Your task to perform on an android device: open app "Microsoft Outlook" (install if not already installed) Image 0: 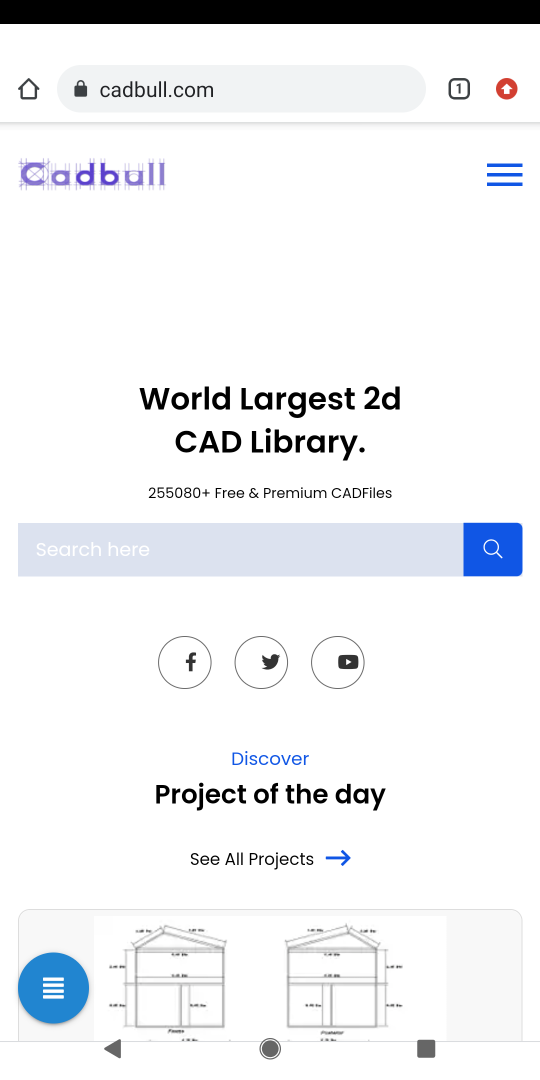
Step 0: press home button
Your task to perform on an android device: open app "Microsoft Outlook" (install if not already installed) Image 1: 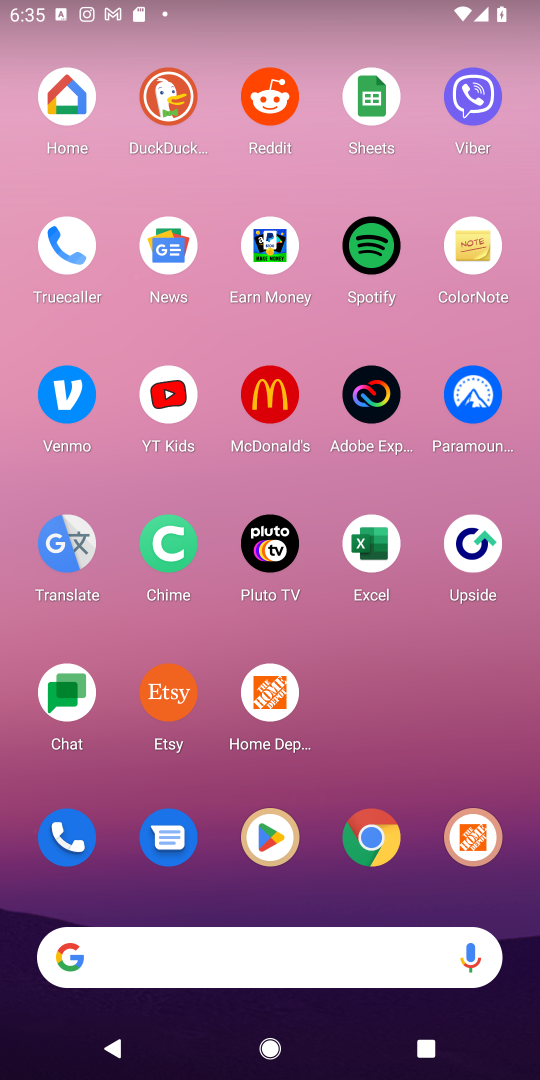
Step 1: press home button
Your task to perform on an android device: open app "Microsoft Outlook" (install if not already installed) Image 2: 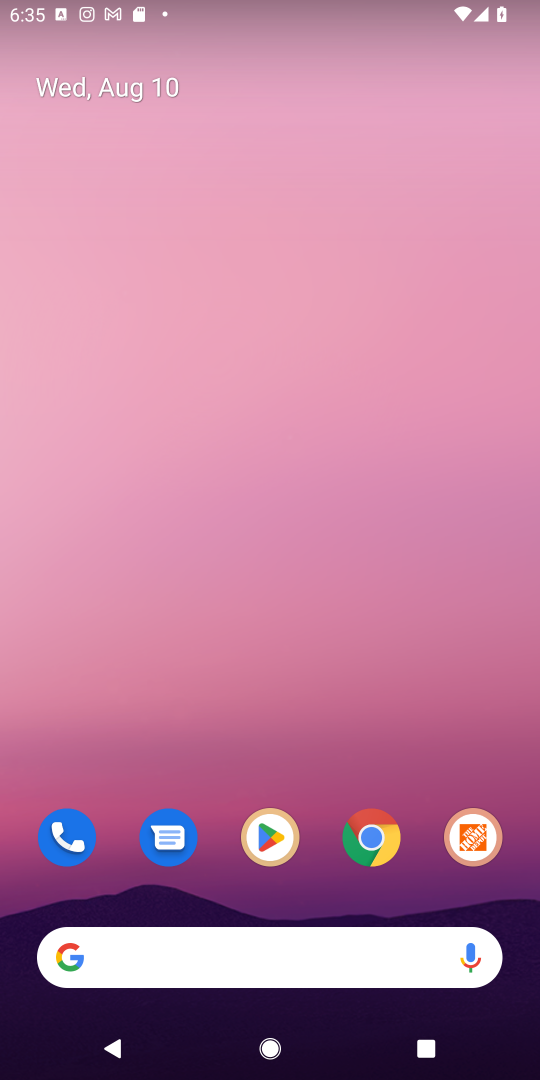
Step 2: click (264, 846)
Your task to perform on an android device: open app "Microsoft Outlook" (install if not already installed) Image 3: 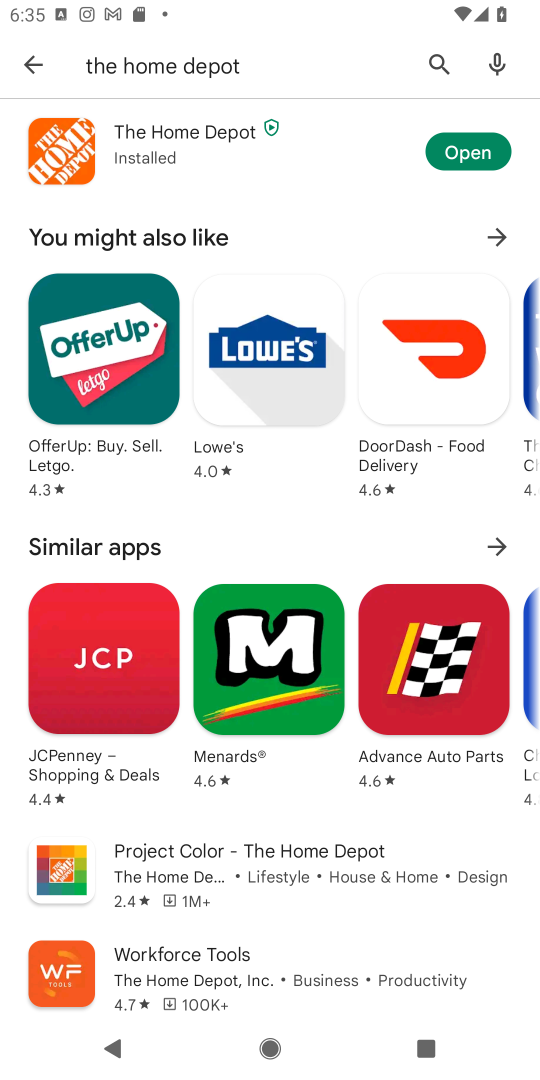
Step 3: click (430, 58)
Your task to perform on an android device: open app "Microsoft Outlook" (install if not already installed) Image 4: 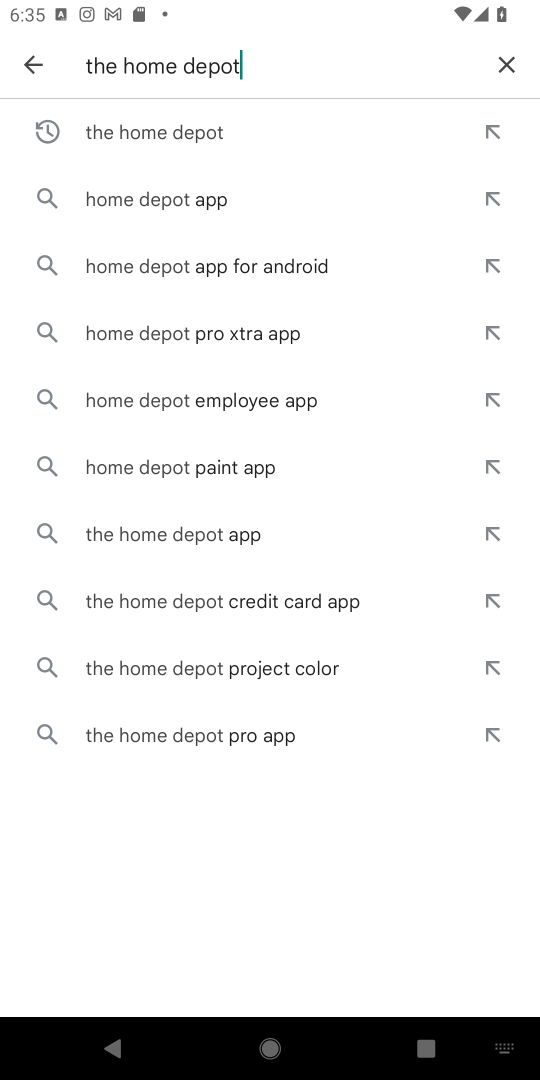
Step 4: click (509, 46)
Your task to perform on an android device: open app "Microsoft Outlook" (install if not already installed) Image 5: 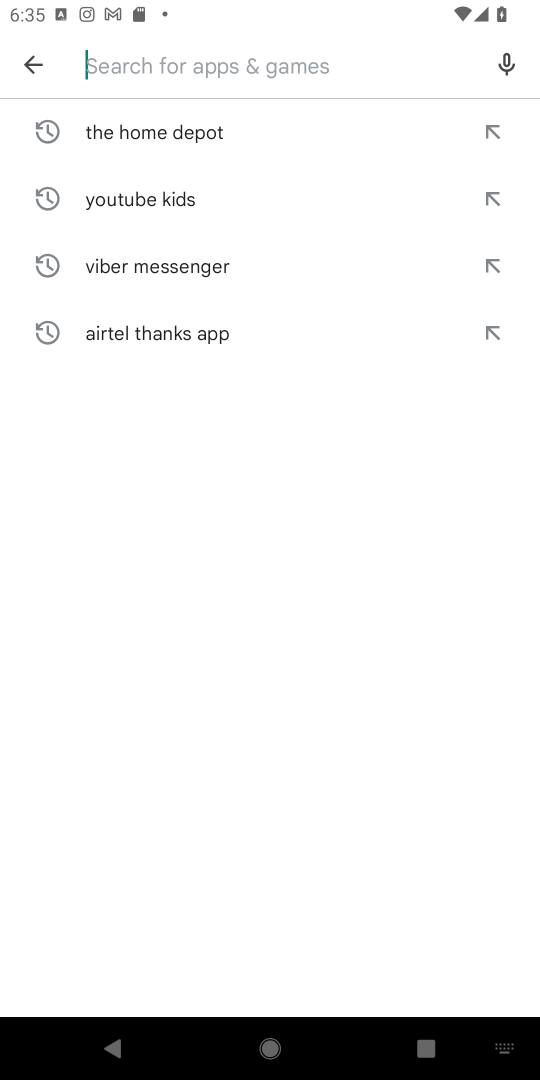
Step 5: type "Microsoft Outlook"
Your task to perform on an android device: open app "Microsoft Outlook" (install if not already installed) Image 6: 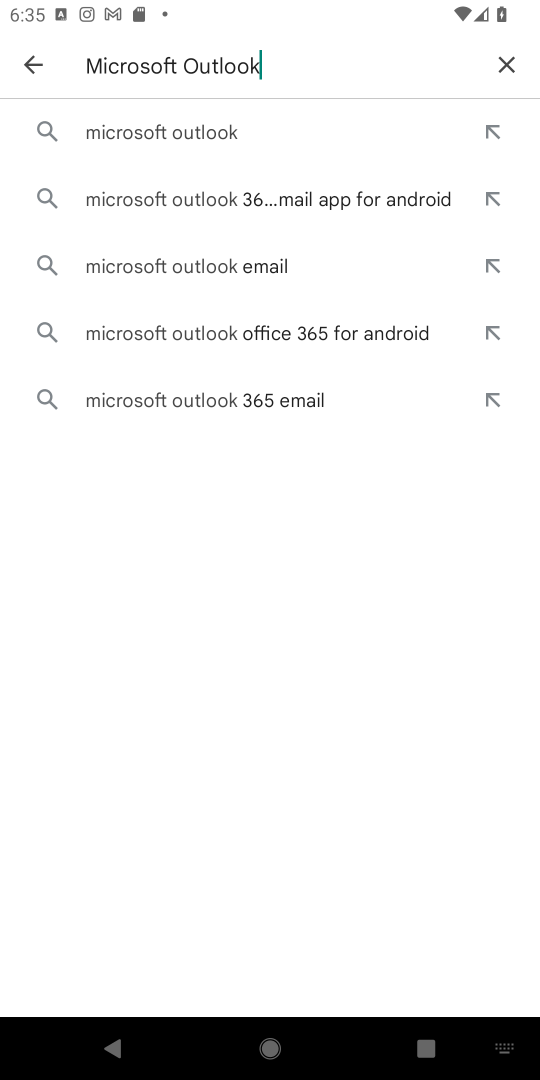
Step 6: click (186, 134)
Your task to perform on an android device: open app "Microsoft Outlook" (install if not already installed) Image 7: 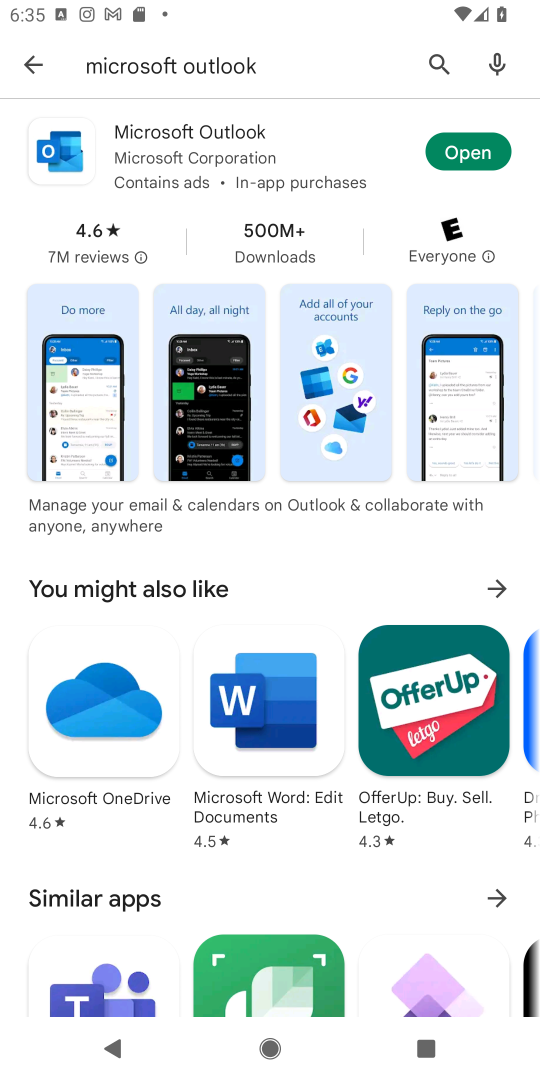
Step 7: click (459, 140)
Your task to perform on an android device: open app "Microsoft Outlook" (install if not already installed) Image 8: 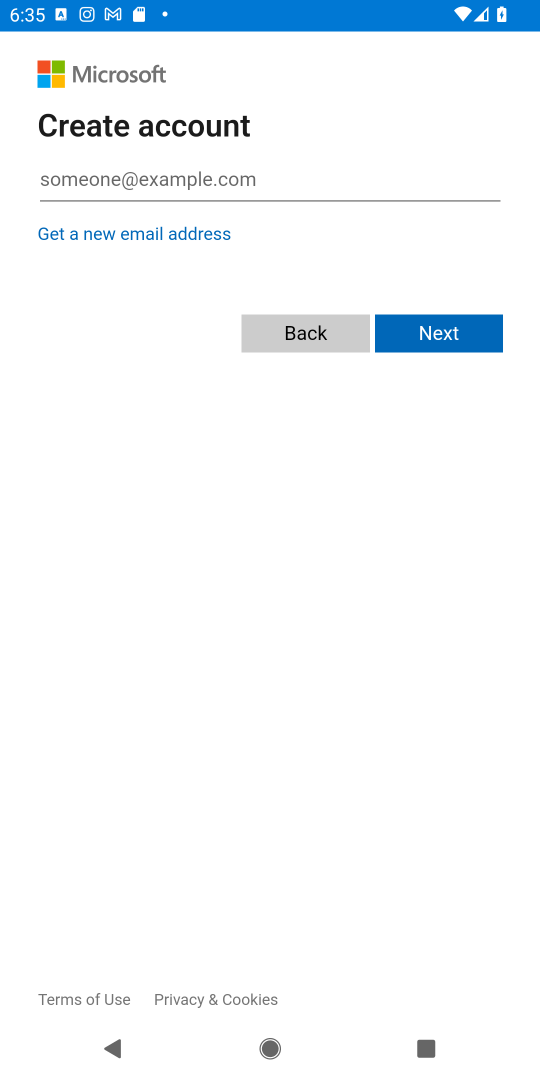
Step 8: task complete